Your task to perform on an android device: toggle show notifications on the lock screen Image 0: 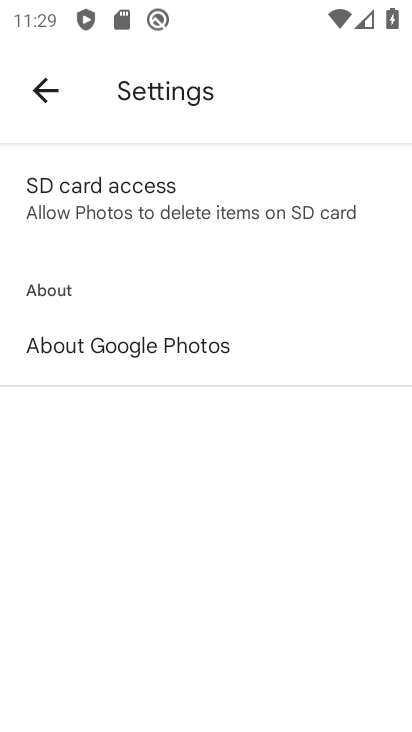
Step 0: press home button
Your task to perform on an android device: toggle show notifications on the lock screen Image 1: 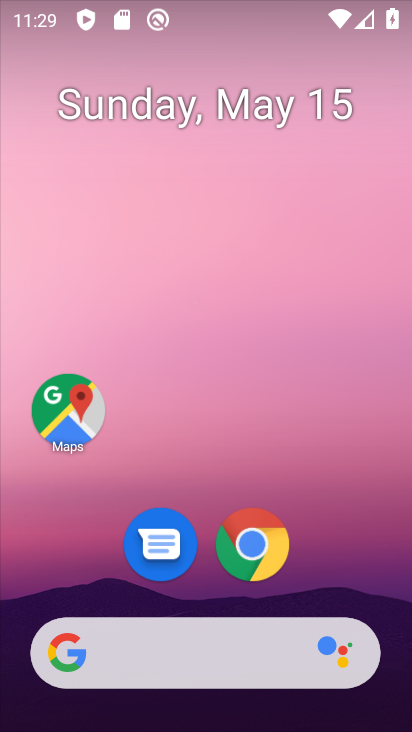
Step 1: drag from (355, 542) to (310, 183)
Your task to perform on an android device: toggle show notifications on the lock screen Image 2: 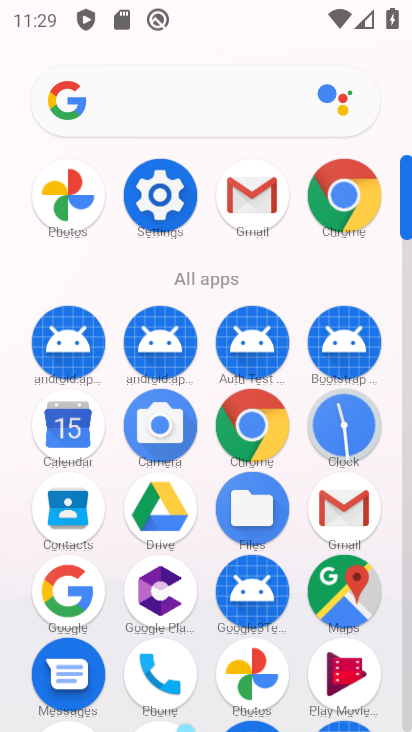
Step 2: click (150, 187)
Your task to perform on an android device: toggle show notifications on the lock screen Image 3: 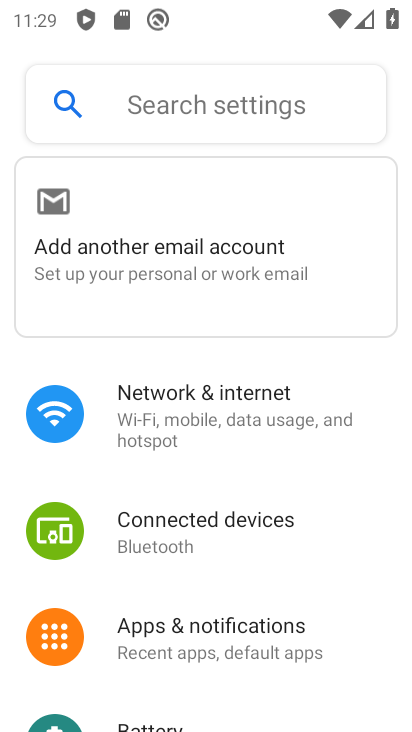
Step 3: click (258, 631)
Your task to perform on an android device: toggle show notifications on the lock screen Image 4: 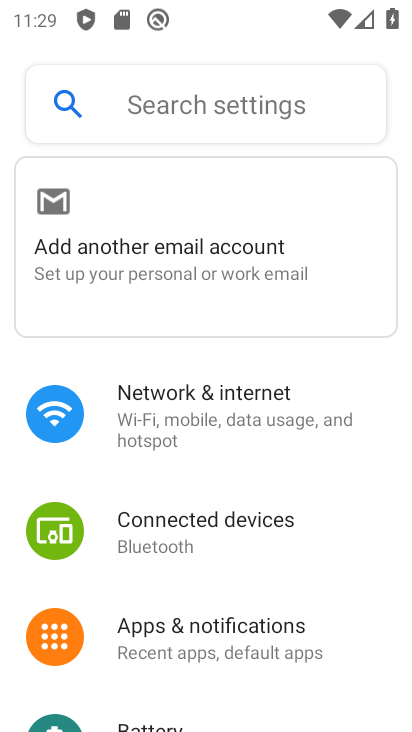
Step 4: click (258, 631)
Your task to perform on an android device: toggle show notifications on the lock screen Image 5: 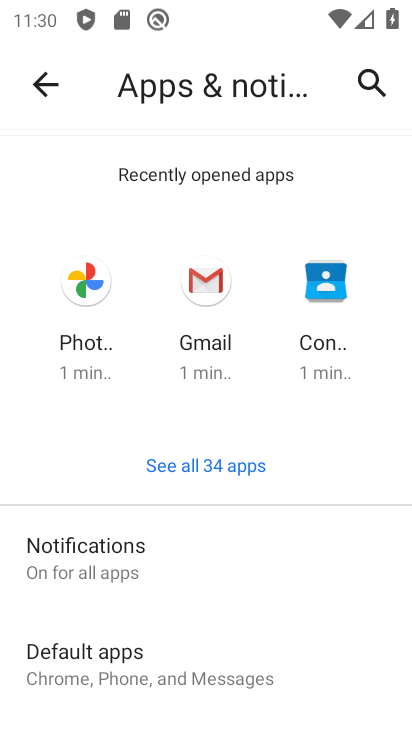
Step 5: click (239, 565)
Your task to perform on an android device: toggle show notifications on the lock screen Image 6: 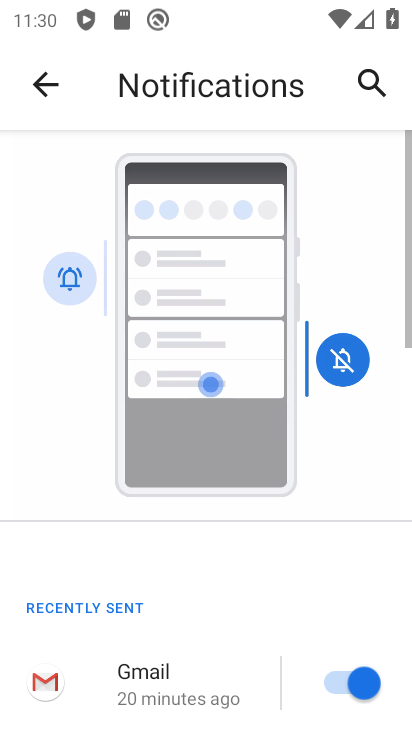
Step 6: drag from (239, 565) to (179, 19)
Your task to perform on an android device: toggle show notifications on the lock screen Image 7: 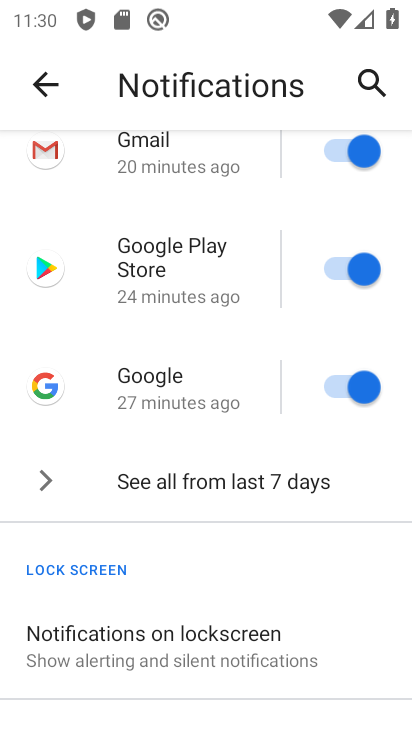
Step 7: click (273, 646)
Your task to perform on an android device: toggle show notifications on the lock screen Image 8: 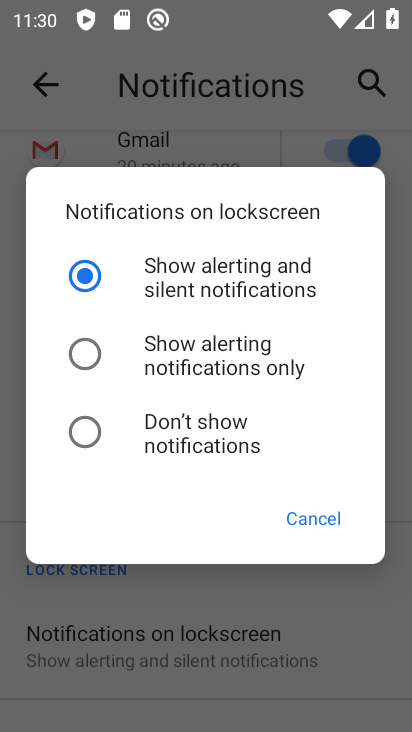
Step 8: click (229, 432)
Your task to perform on an android device: toggle show notifications on the lock screen Image 9: 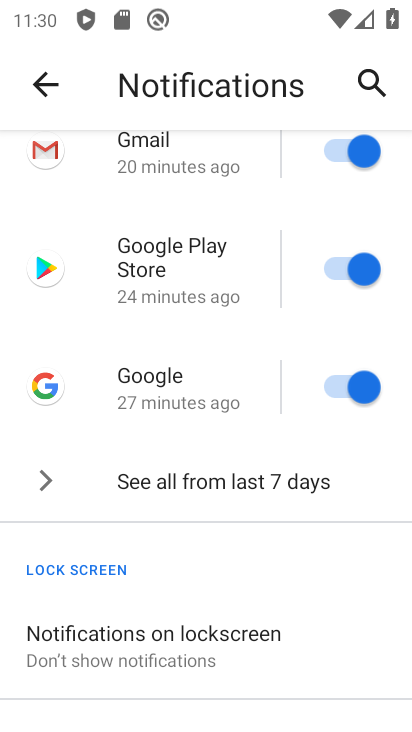
Step 9: task complete